Your task to perform on an android device: Open Reddit.com Image 0: 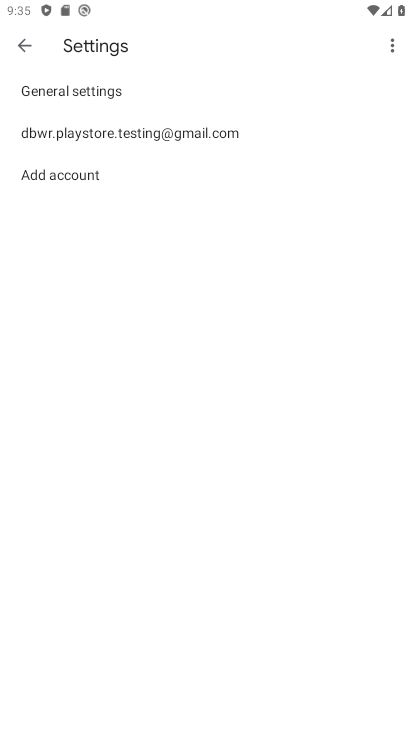
Step 0: press home button
Your task to perform on an android device: Open Reddit.com Image 1: 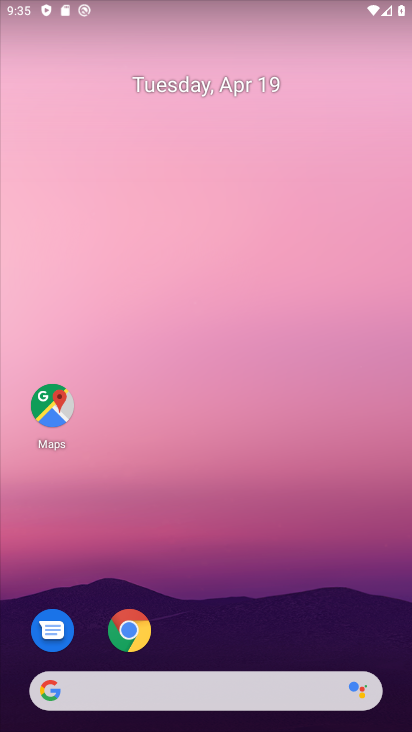
Step 1: click (211, 679)
Your task to perform on an android device: Open Reddit.com Image 2: 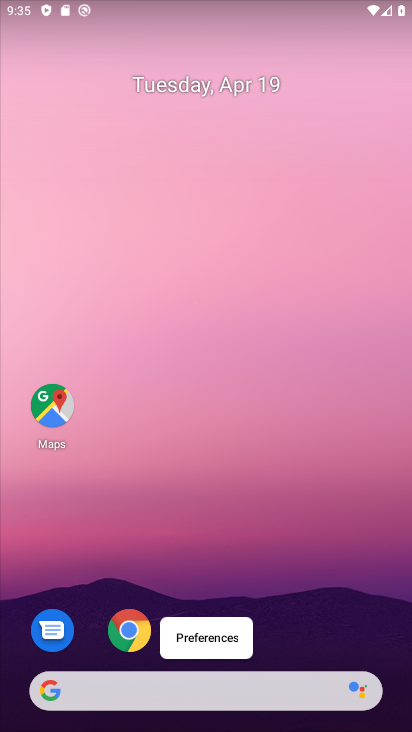
Step 2: click (216, 692)
Your task to perform on an android device: Open Reddit.com Image 3: 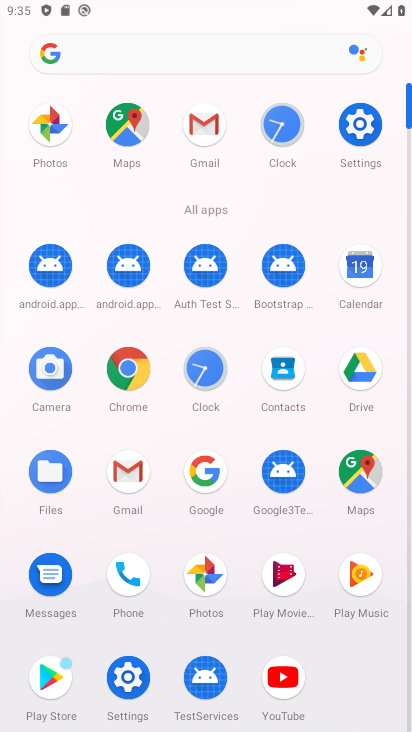
Step 3: click (212, 480)
Your task to perform on an android device: Open Reddit.com Image 4: 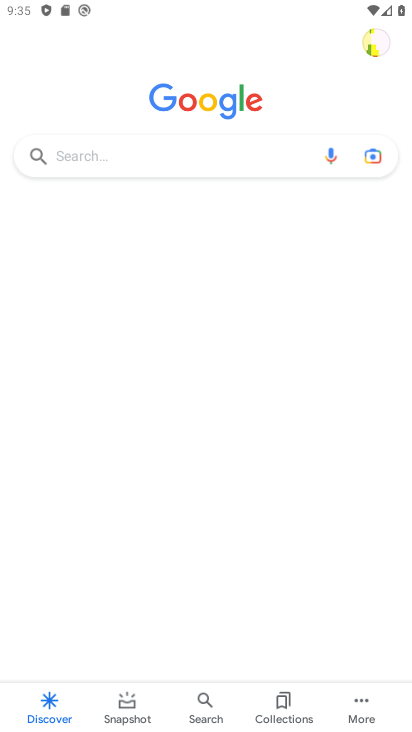
Step 4: click (200, 142)
Your task to perform on an android device: Open Reddit.com Image 5: 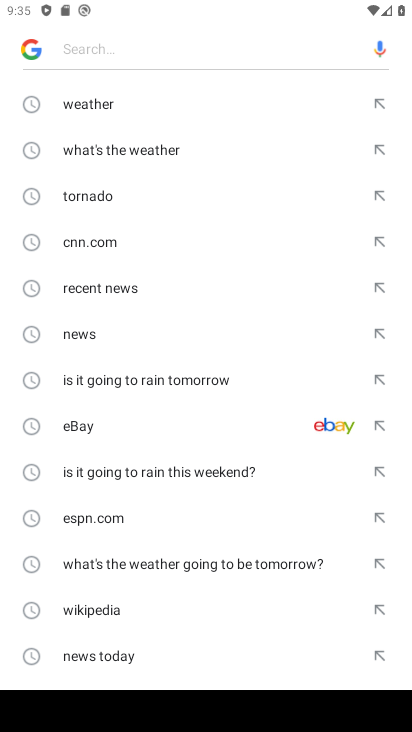
Step 5: type "Reddit.com"
Your task to perform on an android device: Open Reddit.com Image 6: 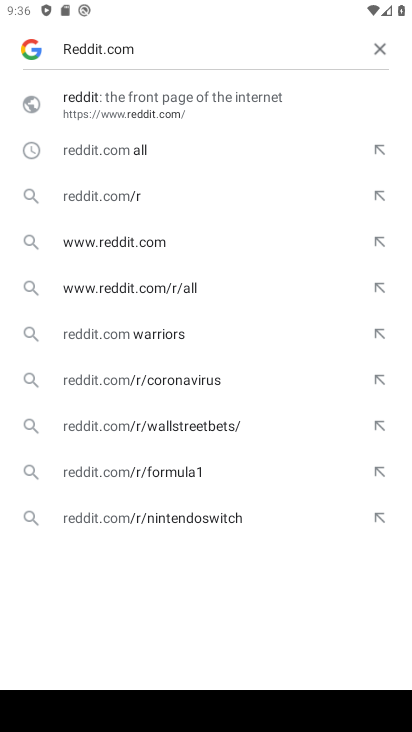
Step 6: click (173, 236)
Your task to perform on an android device: Open Reddit.com Image 7: 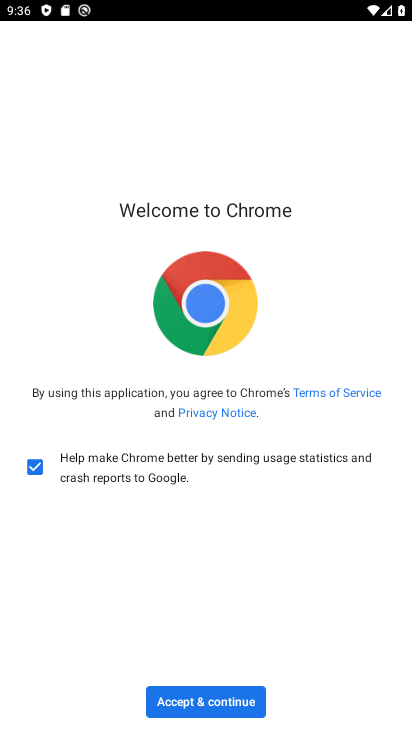
Step 7: click (173, 697)
Your task to perform on an android device: Open Reddit.com Image 8: 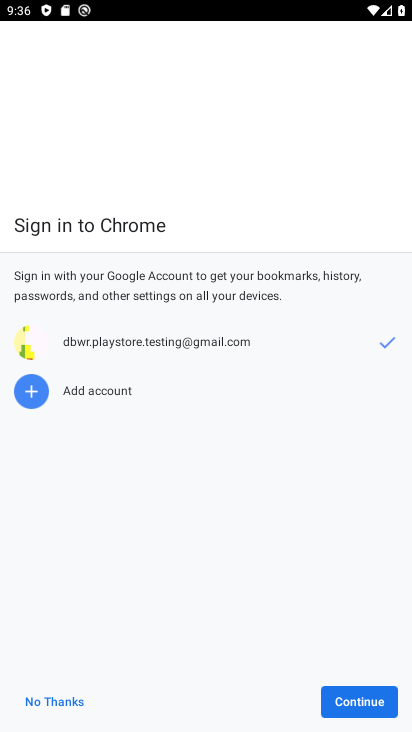
Step 8: click (342, 688)
Your task to perform on an android device: Open Reddit.com Image 9: 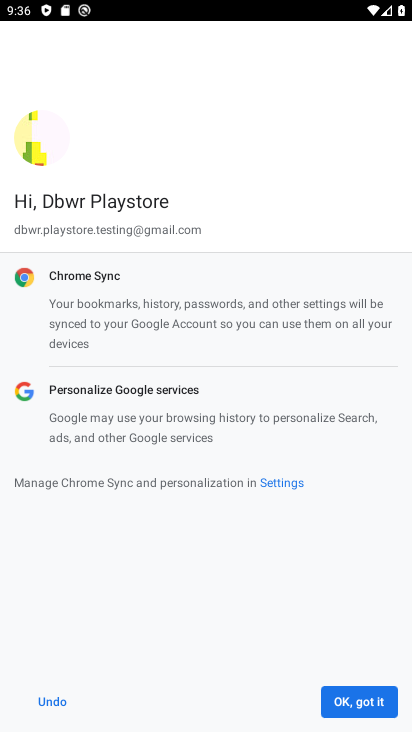
Step 9: click (342, 688)
Your task to perform on an android device: Open Reddit.com Image 10: 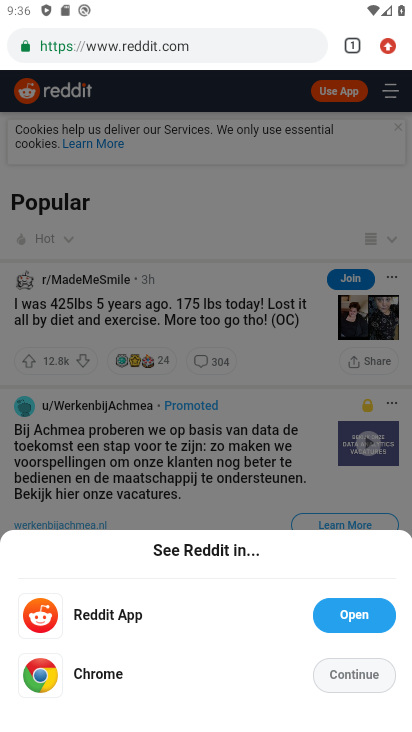
Step 10: click (352, 678)
Your task to perform on an android device: Open Reddit.com Image 11: 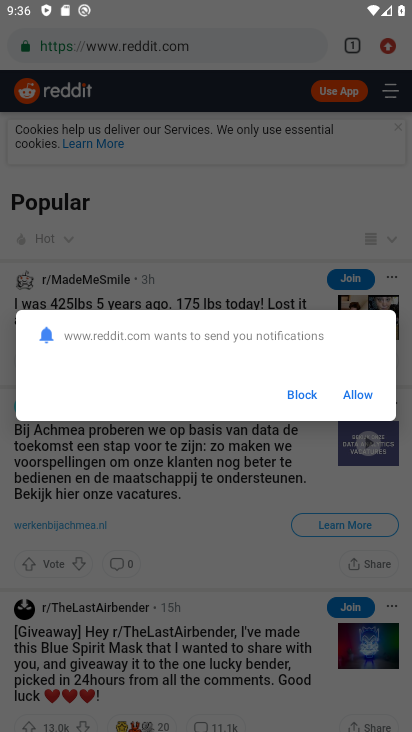
Step 11: click (353, 400)
Your task to perform on an android device: Open Reddit.com Image 12: 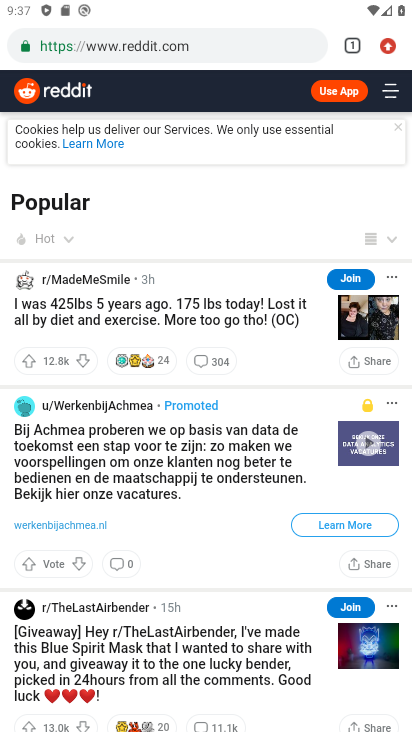
Step 12: task complete